Your task to perform on an android device: search for starred emails in the gmail app Image 0: 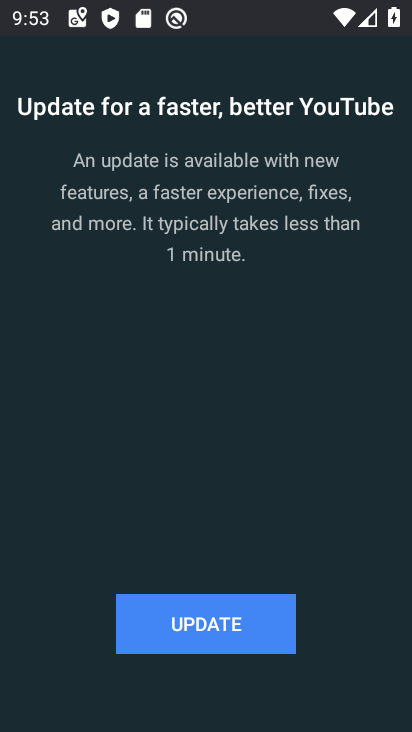
Step 0: press home button
Your task to perform on an android device: search for starred emails in the gmail app Image 1: 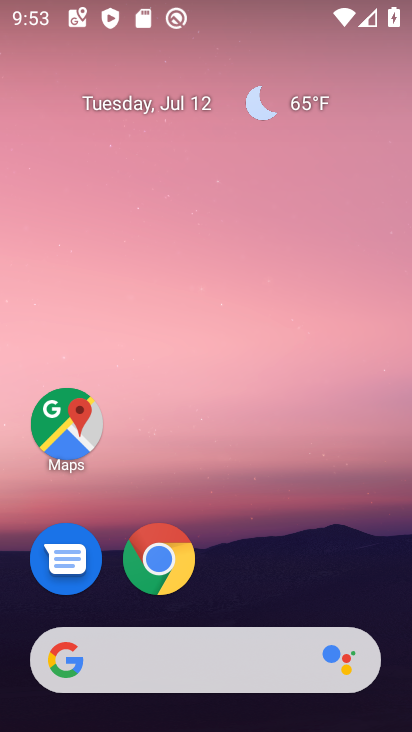
Step 1: drag from (375, 586) to (347, 148)
Your task to perform on an android device: search for starred emails in the gmail app Image 2: 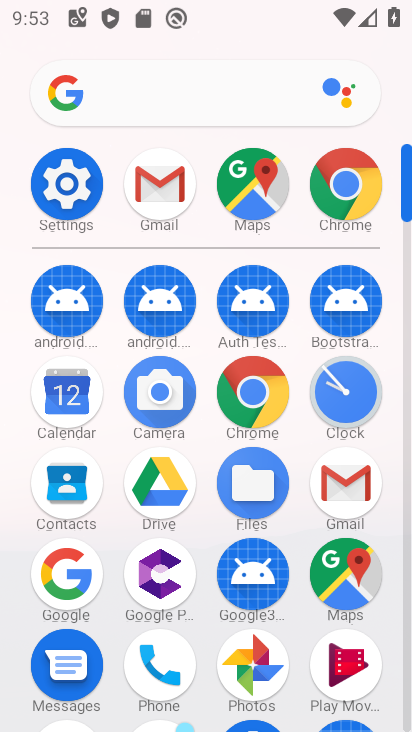
Step 2: click (348, 484)
Your task to perform on an android device: search for starred emails in the gmail app Image 3: 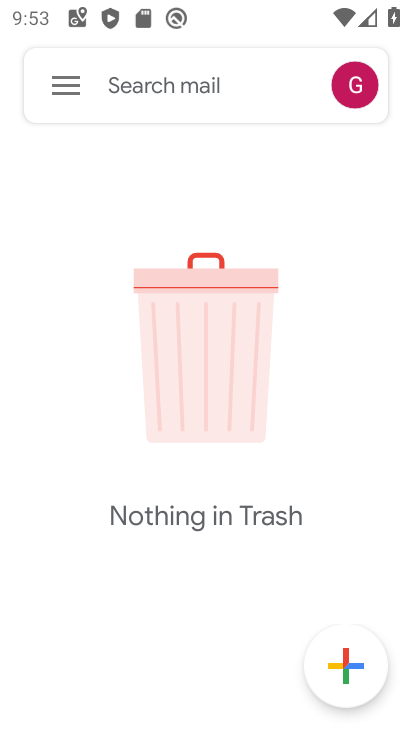
Step 3: click (73, 89)
Your task to perform on an android device: search for starred emails in the gmail app Image 4: 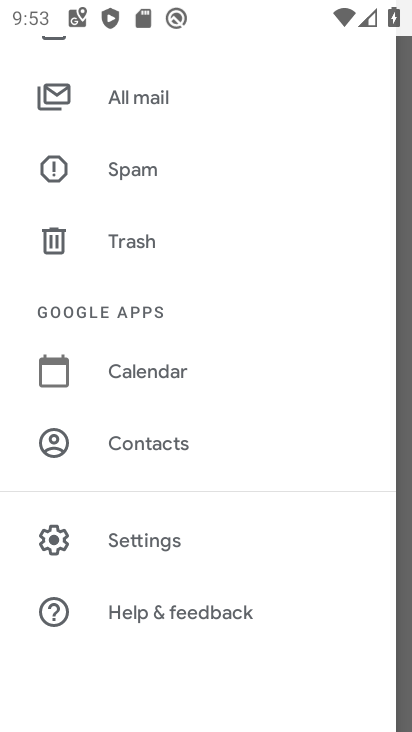
Step 4: drag from (263, 306) to (274, 362)
Your task to perform on an android device: search for starred emails in the gmail app Image 5: 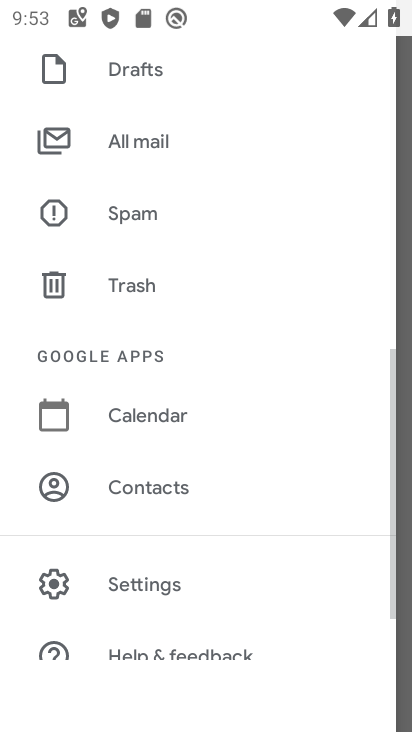
Step 5: drag from (281, 277) to (297, 368)
Your task to perform on an android device: search for starred emails in the gmail app Image 6: 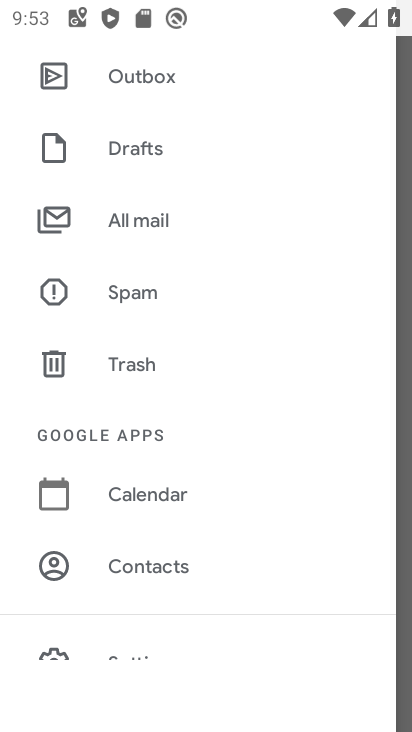
Step 6: drag from (291, 269) to (295, 354)
Your task to perform on an android device: search for starred emails in the gmail app Image 7: 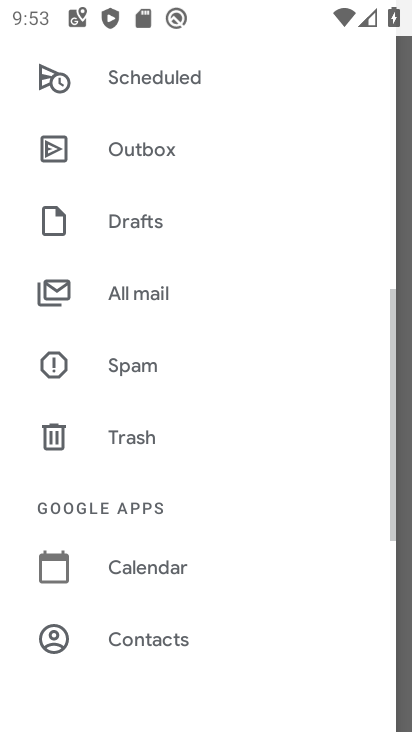
Step 7: drag from (295, 260) to (301, 356)
Your task to perform on an android device: search for starred emails in the gmail app Image 8: 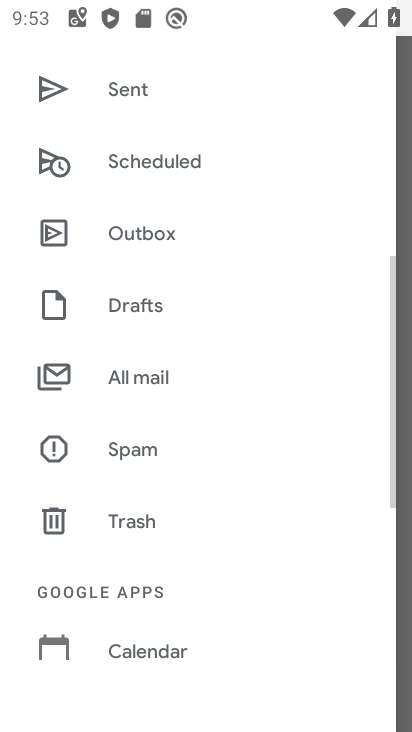
Step 8: drag from (275, 203) to (281, 298)
Your task to perform on an android device: search for starred emails in the gmail app Image 9: 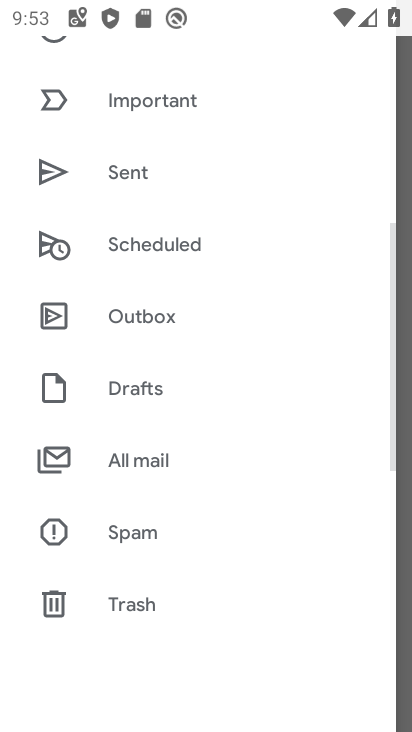
Step 9: drag from (264, 168) to (280, 292)
Your task to perform on an android device: search for starred emails in the gmail app Image 10: 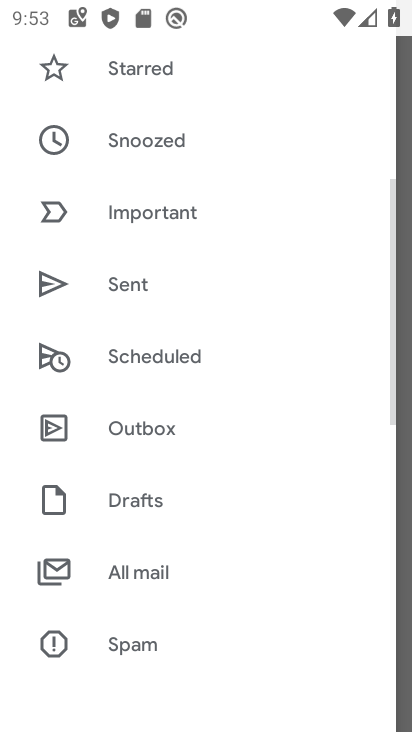
Step 10: drag from (280, 185) to (288, 294)
Your task to perform on an android device: search for starred emails in the gmail app Image 11: 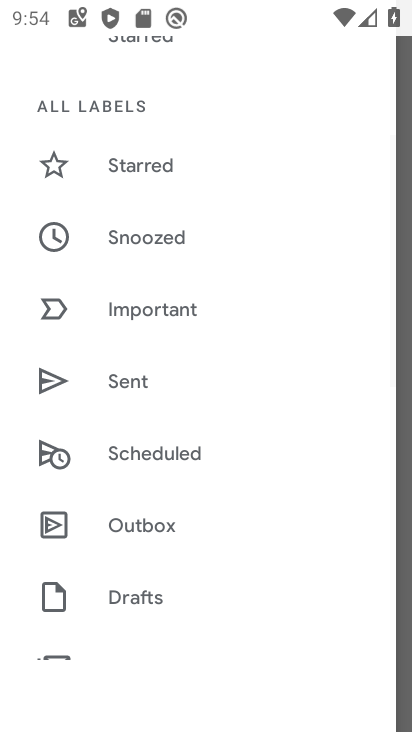
Step 11: drag from (276, 198) to (276, 307)
Your task to perform on an android device: search for starred emails in the gmail app Image 12: 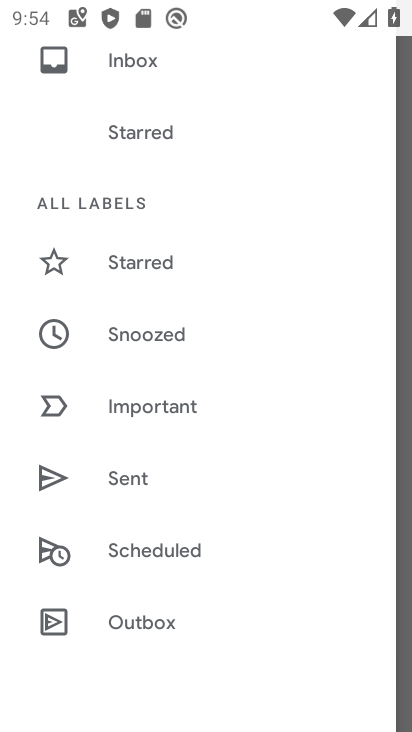
Step 12: click (188, 269)
Your task to perform on an android device: search for starred emails in the gmail app Image 13: 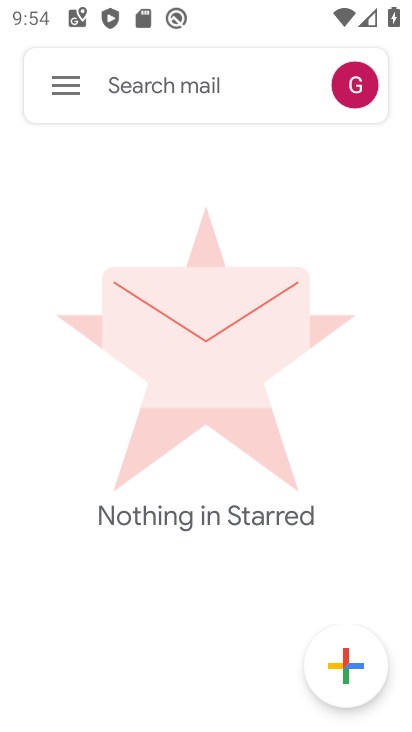
Step 13: task complete